Your task to perform on an android device: Clear the cart on walmart. Search for jbl flip 4 on walmart, select the first entry, add it to the cart, then select checkout. Image 0: 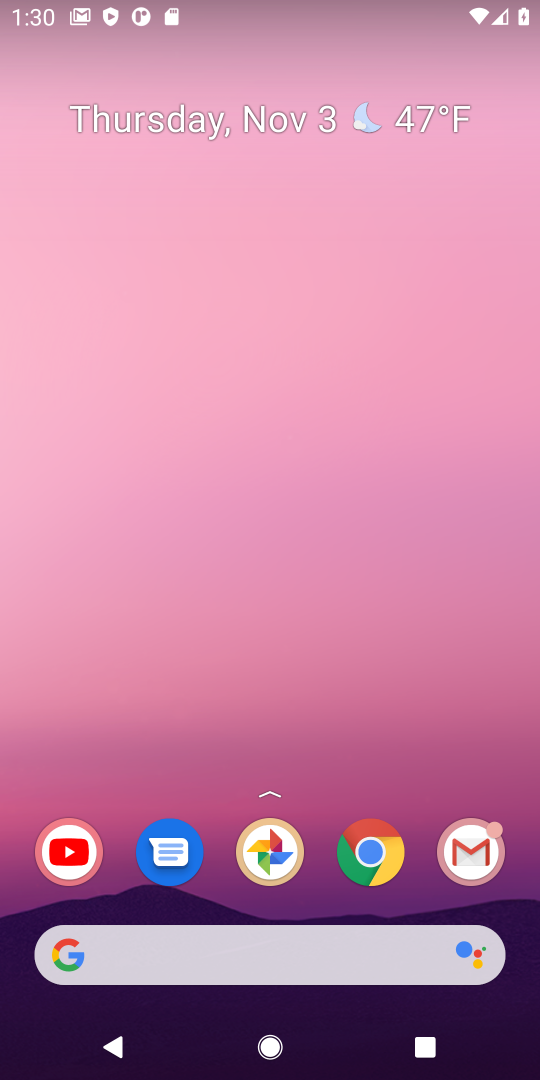
Step 0: click (371, 861)
Your task to perform on an android device: Clear the cart on walmart. Search for jbl flip 4 on walmart, select the first entry, add it to the cart, then select checkout. Image 1: 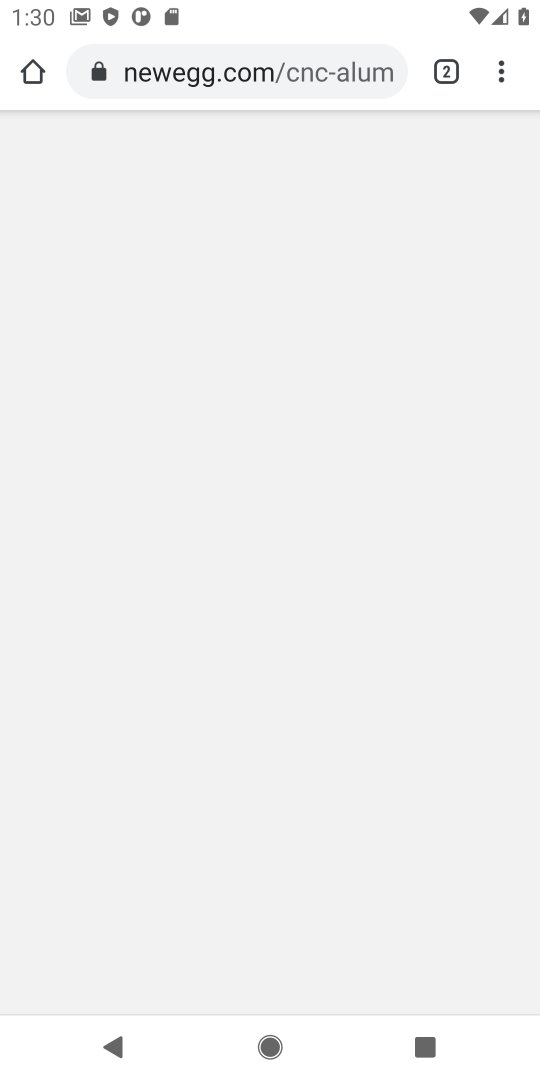
Step 1: click (190, 131)
Your task to perform on an android device: Clear the cart on walmart. Search for jbl flip 4 on walmart, select the first entry, add it to the cart, then select checkout. Image 2: 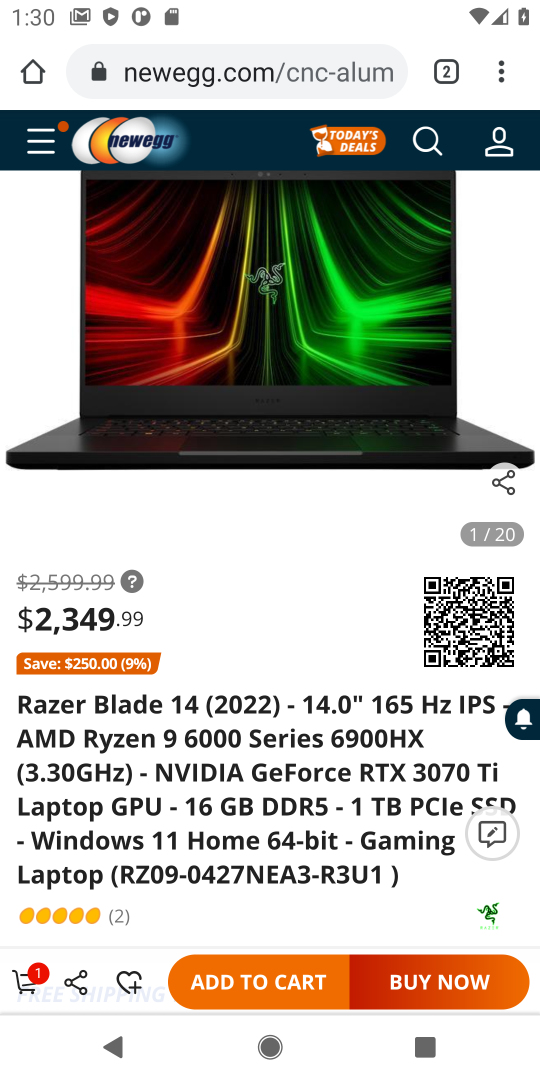
Step 2: click (192, 81)
Your task to perform on an android device: Clear the cart on walmart. Search for jbl flip 4 on walmart, select the first entry, add it to the cart, then select checkout. Image 3: 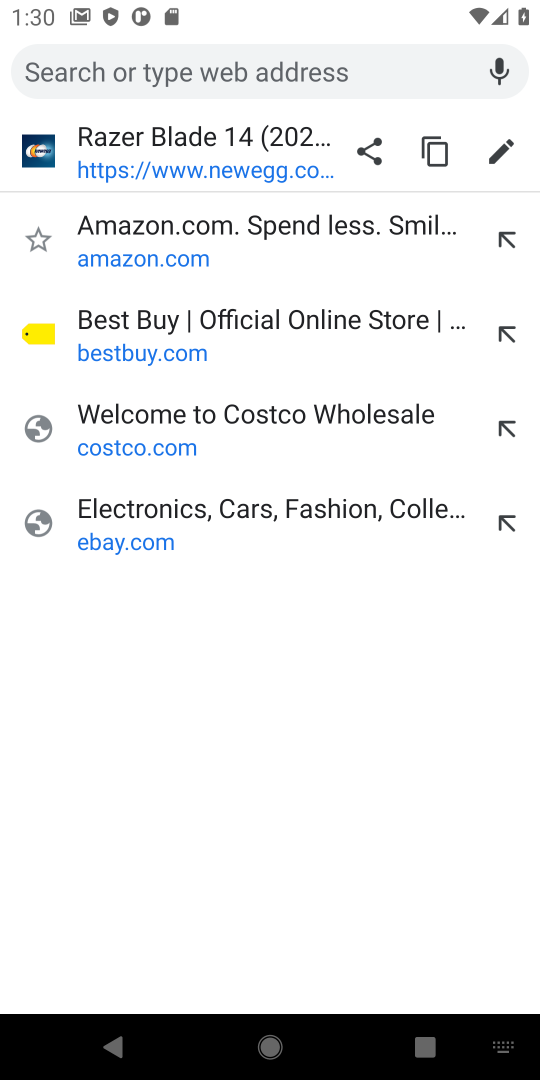
Step 3: type "walmart.com"
Your task to perform on an android device: Clear the cart on walmart. Search for jbl flip 4 on walmart, select the first entry, add it to the cart, then select checkout. Image 4: 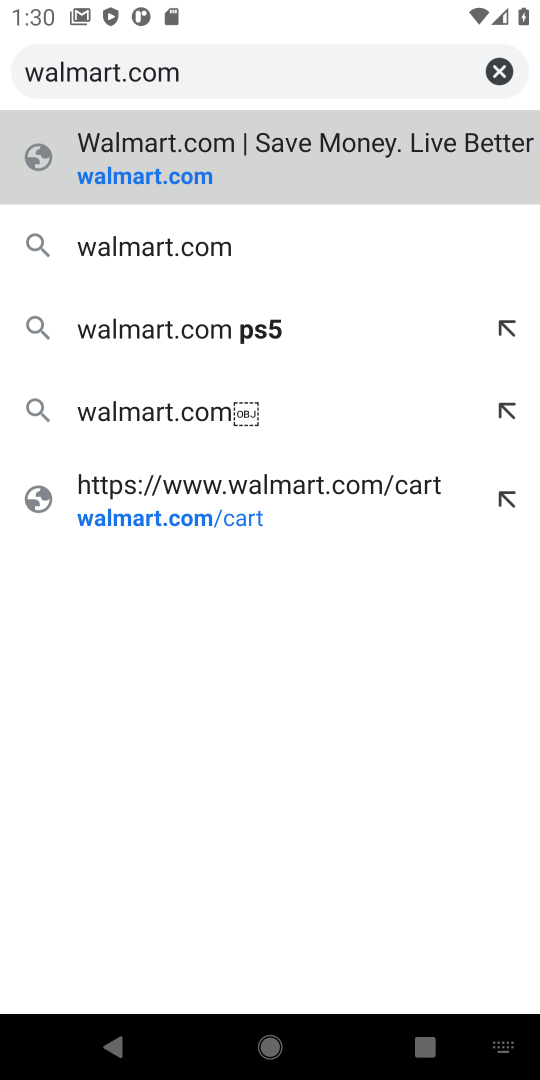
Step 4: click (129, 180)
Your task to perform on an android device: Clear the cart on walmart. Search for jbl flip 4 on walmart, select the first entry, add it to the cart, then select checkout. Image 5: 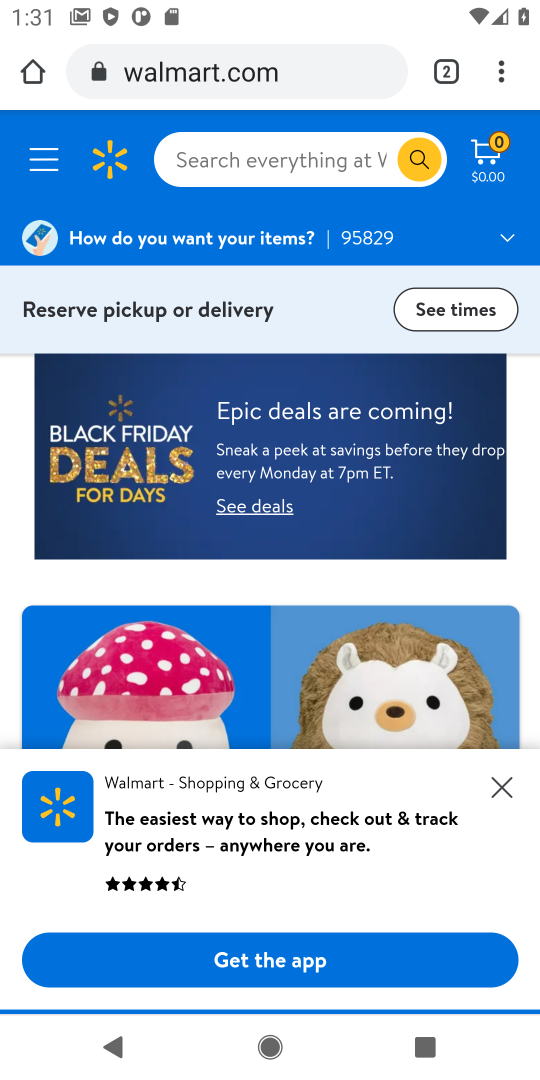
Step 5: click (485, 155)
Your task to perform on an android device: Clear the cart on walmart. Search for jbl flip 4 on walmart, select the first entry, add it to the cart, then select checkout. Image 6: 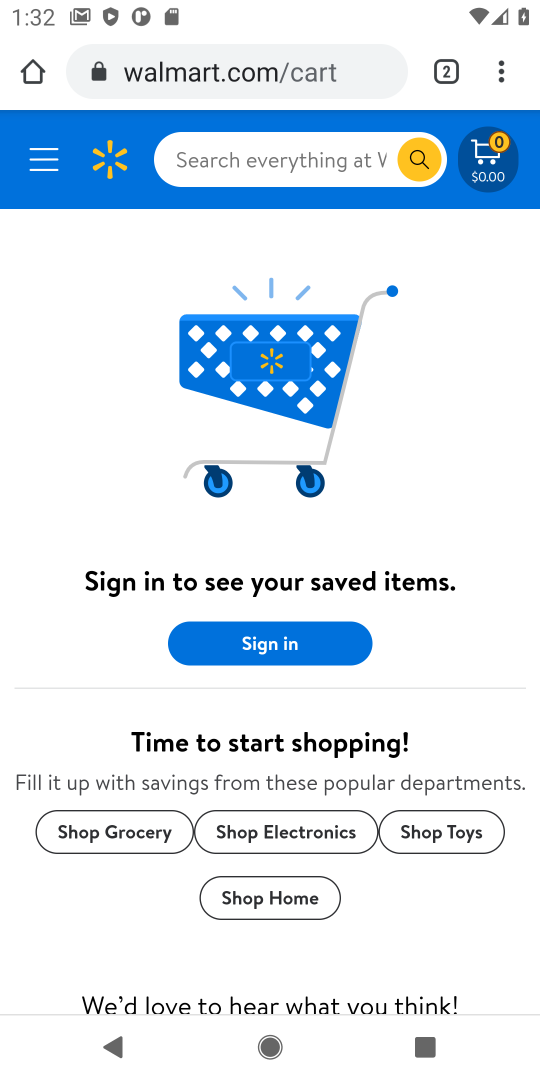
Step 6: click (272, 167)
Your task to perform on an android device: Clear the cart on walmart. Search for jbl flip 4 on walmart, select the first entry, add it to the cart, then select checkout. Image 7: 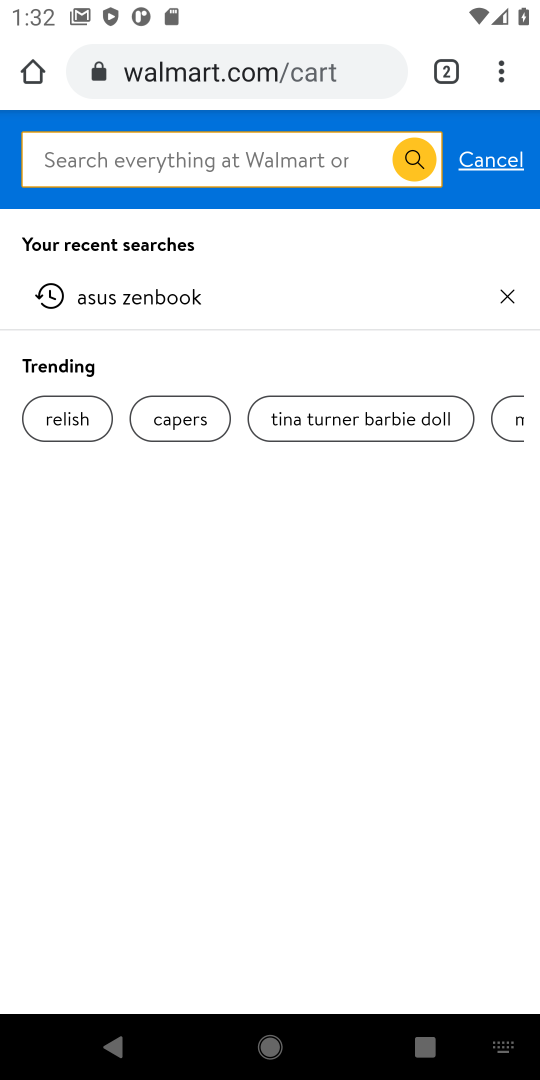
Step 7: type "jbl flip 4"
Your task to perform on an android device: Clear the cart on walmart. Search for jbl flip 4 on walmart, select the first entry, add it to the cart, then select checkout. Image 8: 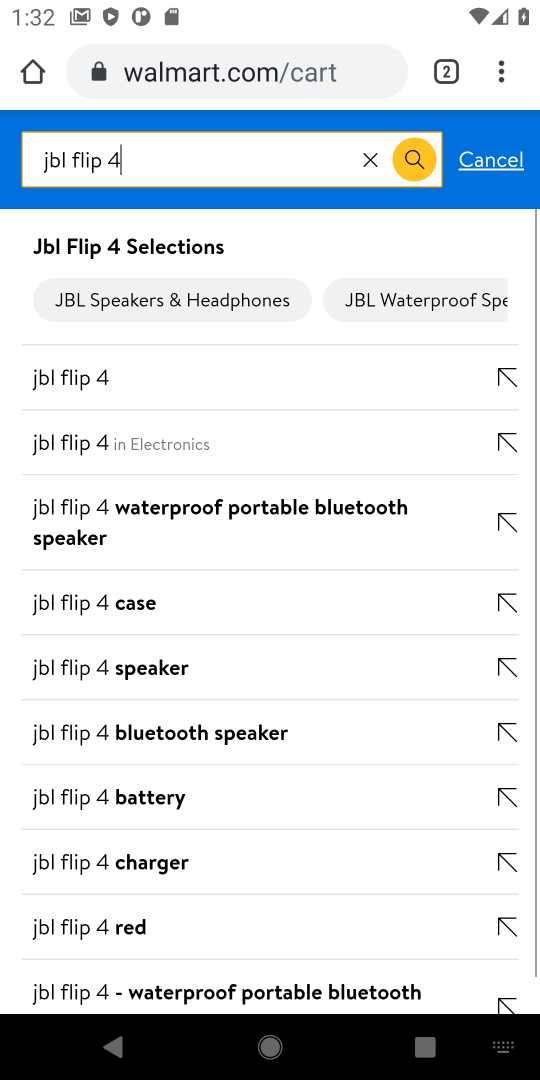
Step 8: click (48, 386)
Your task to perform on an android device: Clear the cart on walmart. Search for jbl flip 4 on walmart, select the first entry, add it to the cart, then select checkout. Image 9: 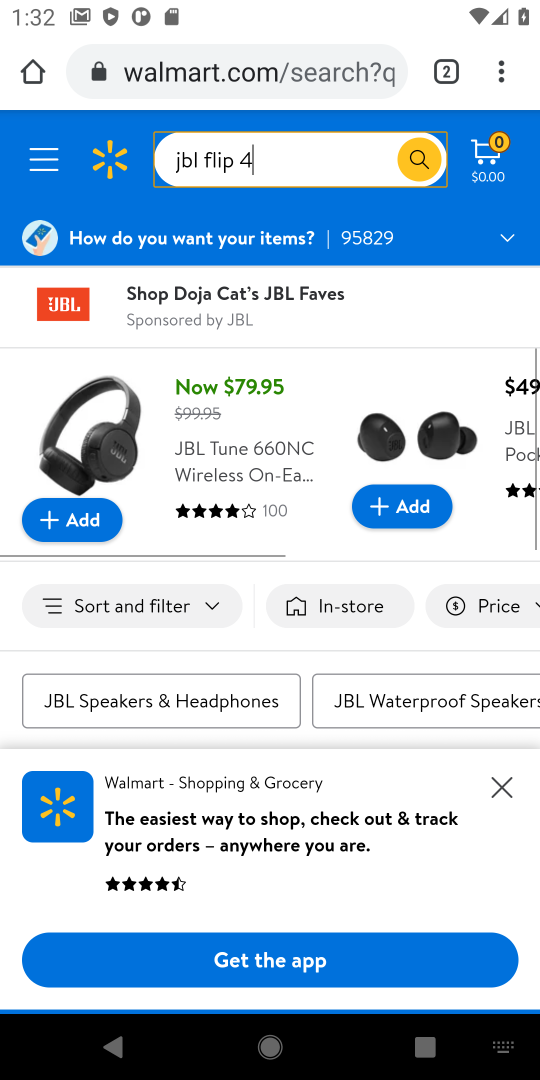
Step 9: click (511, 785)
Your task to perform on an android device: Clear the cart on walmart. Search for jbl flip 4 on walmart, select the first entry, add it to the cart, then select checkout. Image 10: 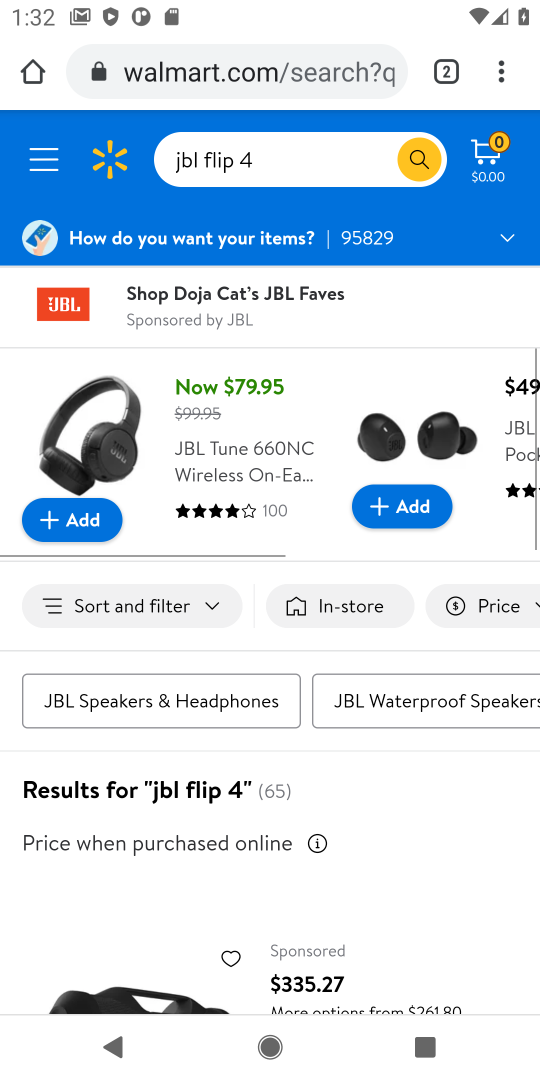
Step 10: task complete